Your task to perform on an android device: set an alarm Image 0: 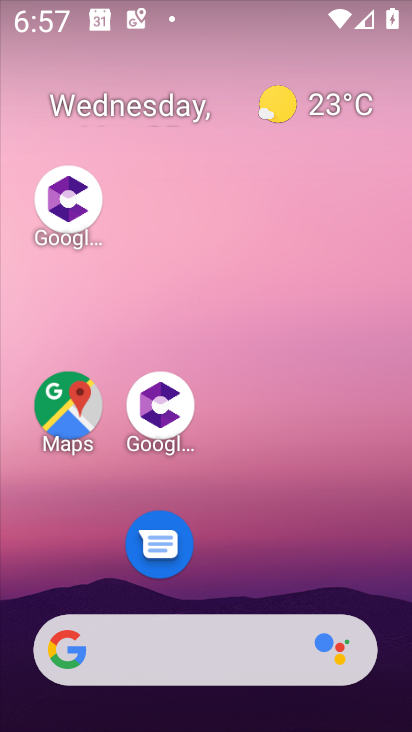
Step 0: drag from (316, 517) to (180, 60)
Your task to perform on an android device: set an alarm Image 1: 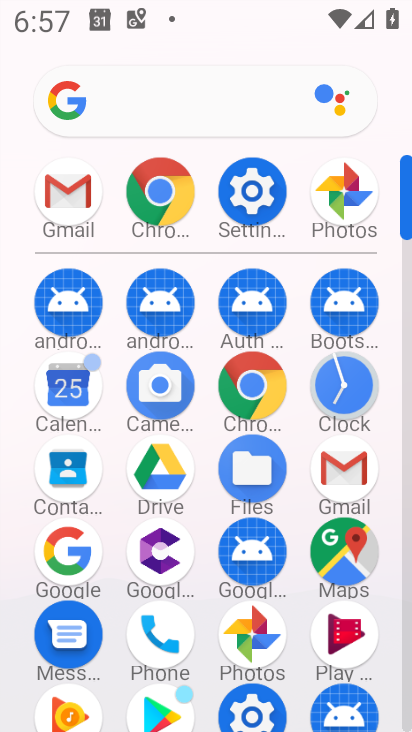
Step 1: click (332, 389)
Your task to perform on an android device: set an alarm Image 2: 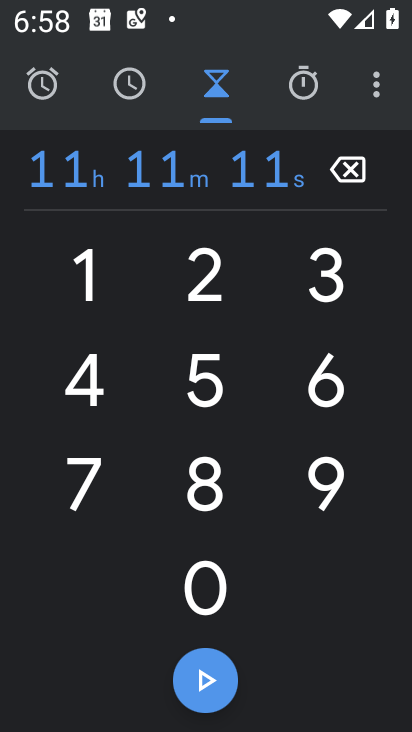
Step 2: click (62, 93)
Your task to perform on an android device: set an alarm Image 3: 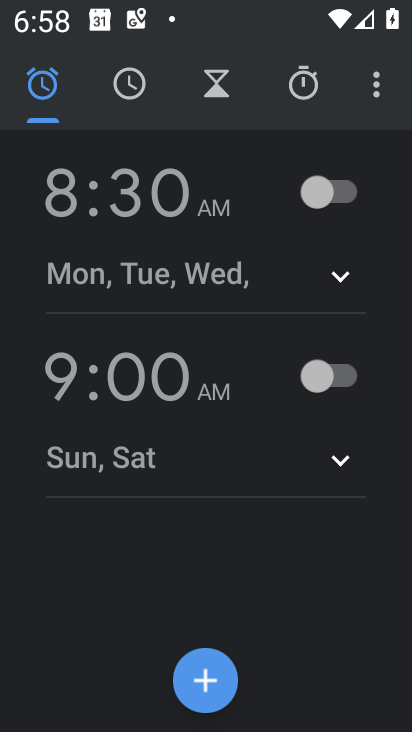
Step 3: click (197, 676)
Your task to perform on an android device: set an alarm Image 4: 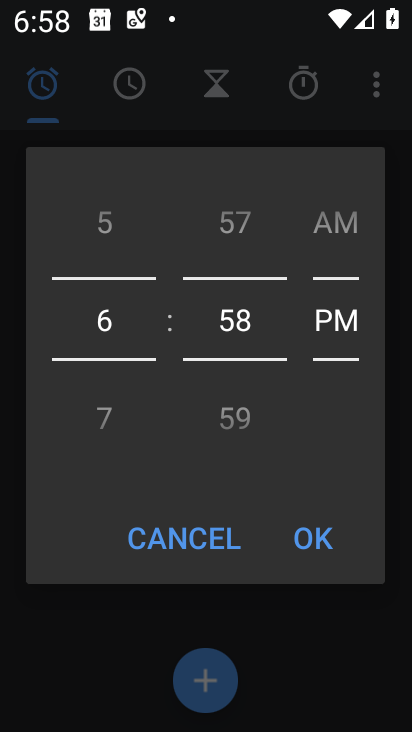
Step 4: click (307, 540)
Your task to perform on an android device: set an alarm Image 5: 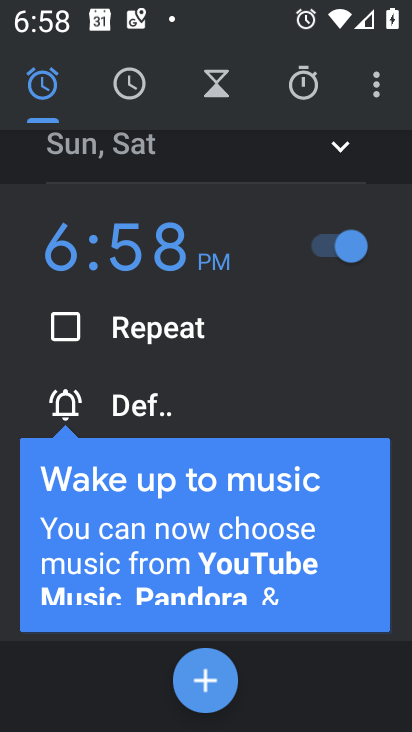
Step 5: task complete